Your task to perform on an android device: open device folders in google photos Image 0: 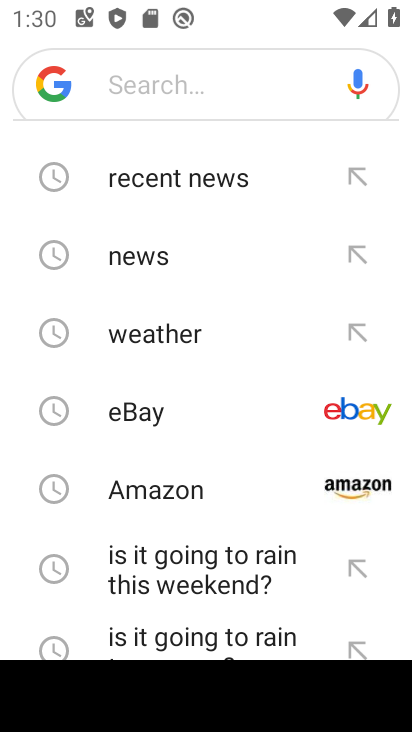
Step 0: press home button
Your task to perform on an android device: open device folders in google photos Image 1: 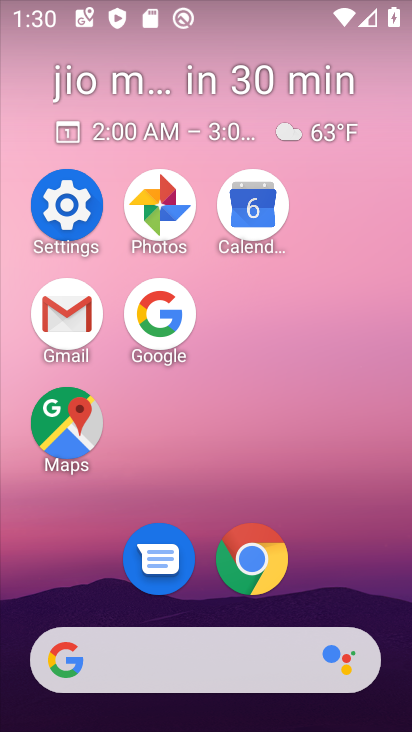
Step 1: click (166, 232)
Your task to perform on an android device: open device folders in google photos Image 2: 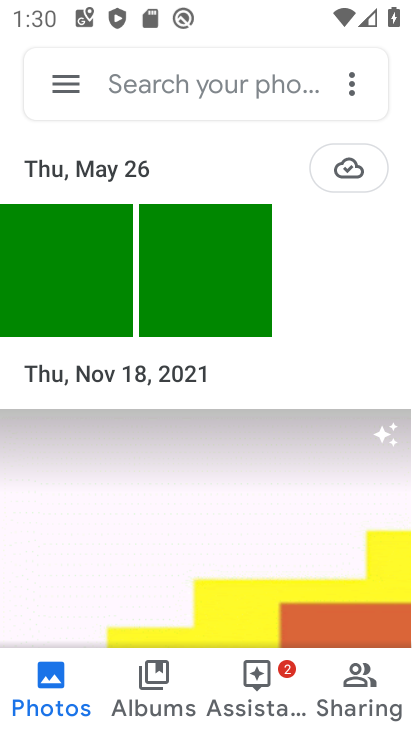
Step 2: click (72, 85)
Your task to perform on an android device: open device folders in google photos Image 3: 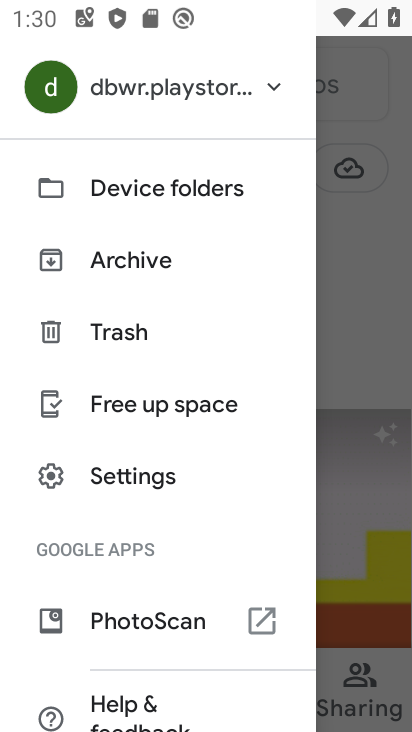
Step 3: click (170, 186)
Your task to perform on an android device: open device folders in google photos Image 4: 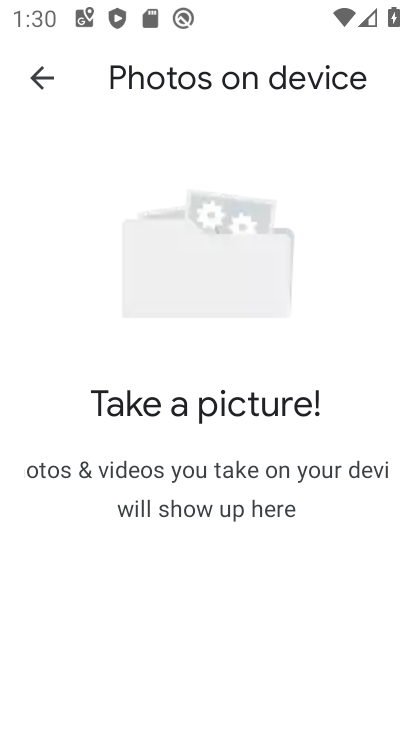
Step 4: task complete